Your task to perform on an android device: create a new album in the google photos Image 0: 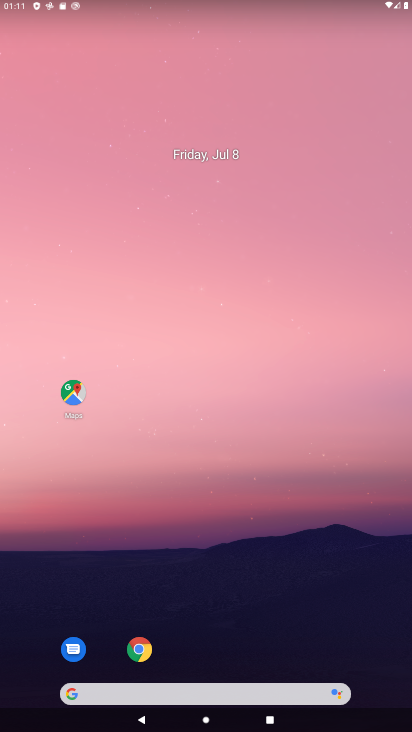
Step 0: drag from (357, 578) to (233, 229)
Your task to perform on an android device: create a new album in the google photos Image 1: 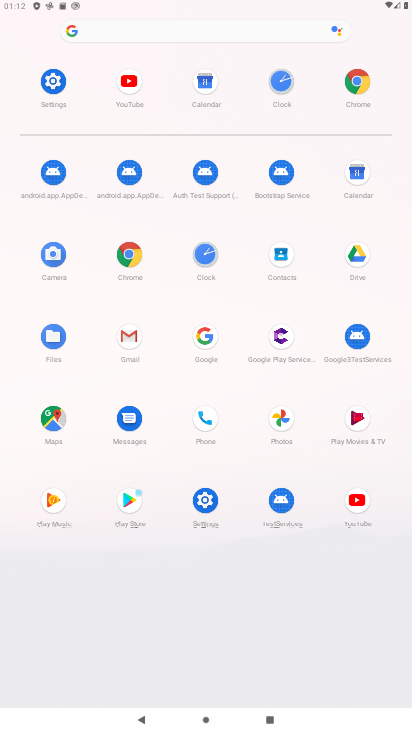
Step 1: click (280, 413)
Your task to perform on an android device: create a new album in the google photos Image 2: 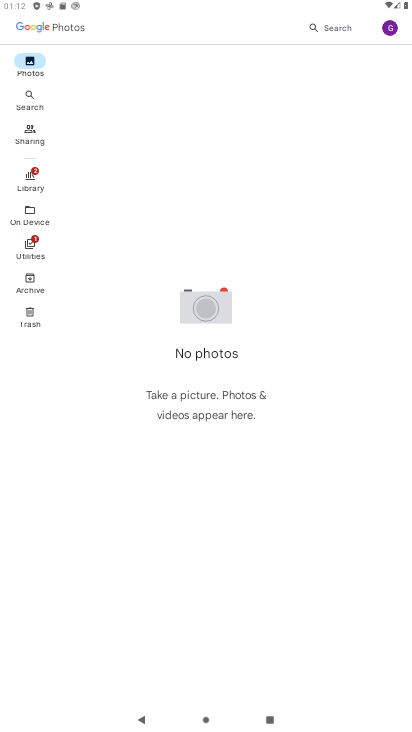
Step 2: click (33, 183)
Your task to perform on an android device: create a new album in the google photos Image 3: 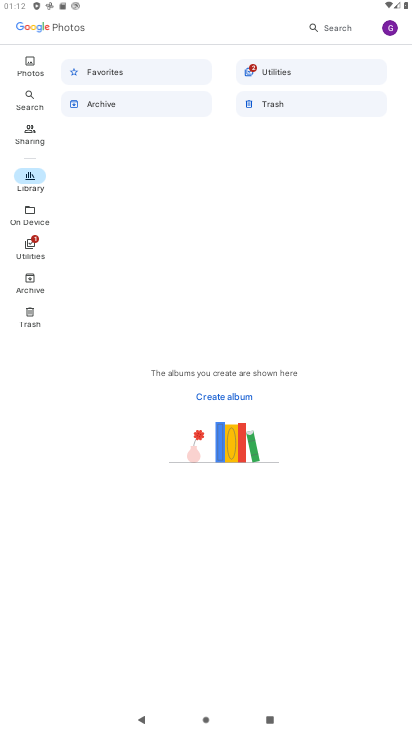
Step 3: click (246, 403)
Your task to perform on an android device: create a new album in the google photos Image 4: 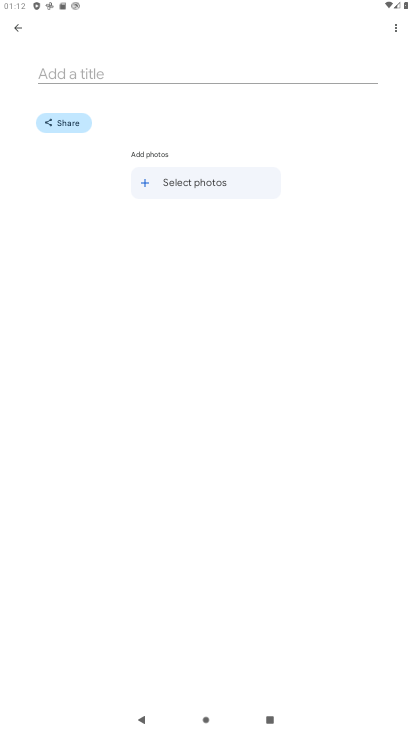
Step 4: click (200, 75)
Your task to perform on an android device: create a new album in the google photos Image 5: 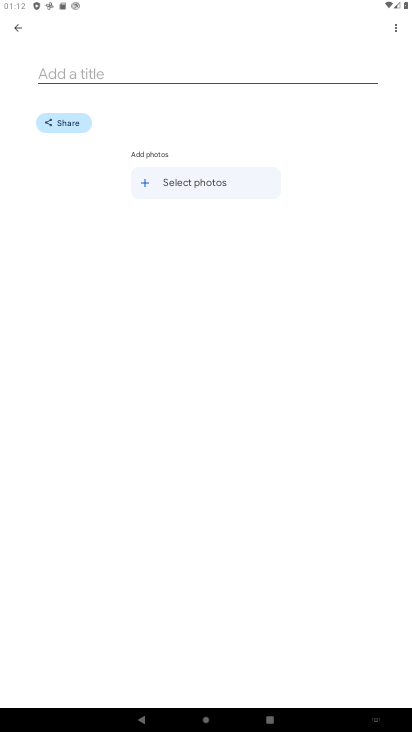
Step 5: type "jou"
Your task to perform on an android device: create a new album in the google photos Image 6: 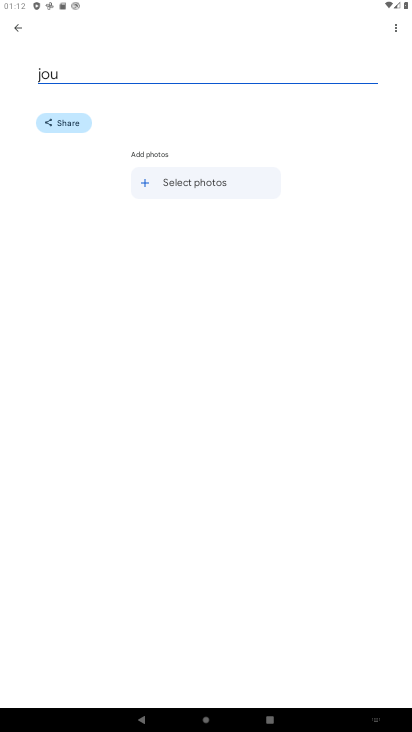
Step 6: click (205, 184)
Your task to perform on an android device: create a new album in the google photos Image 7: 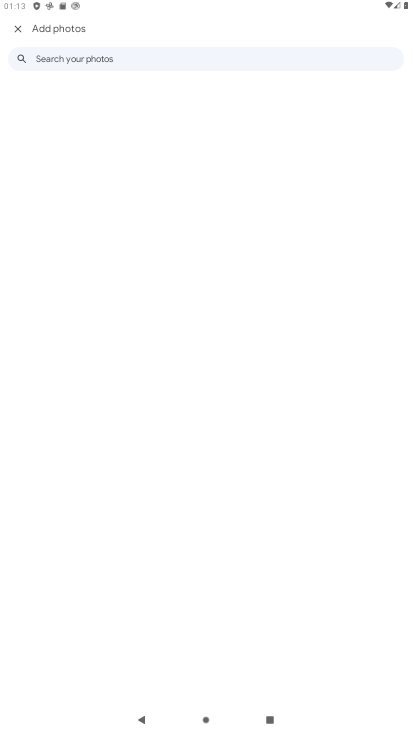
Step 7: press enter
Your task to perform on an android device: create a new album in the google photos Image 8: 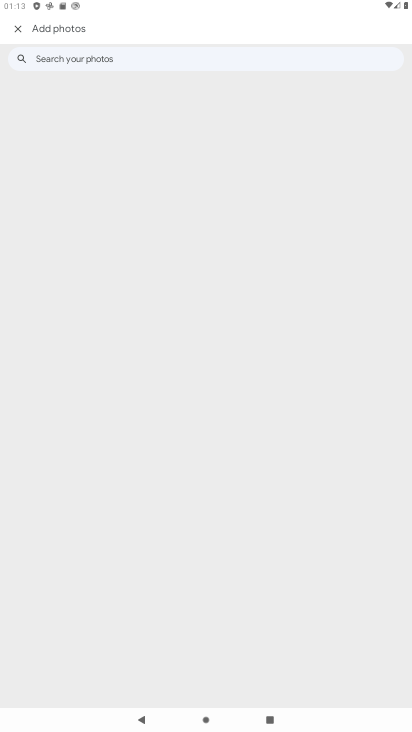
Step 8: click (21, 31)
Your task to perform on an android device: create a new album in the google photos Image 9: 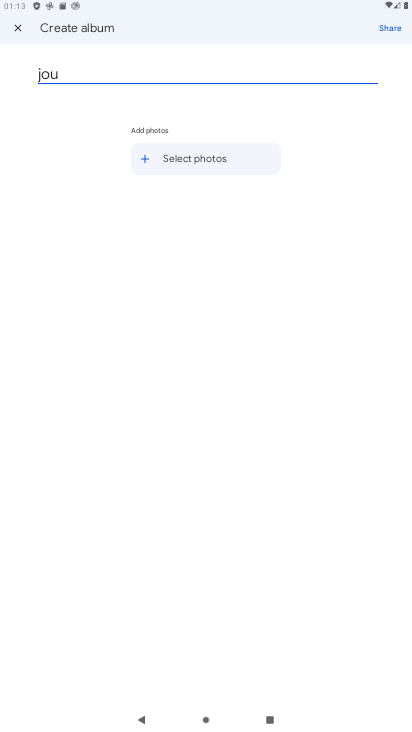
Step 9: press enter
Your task to perform on an android device: create a new album in the google photos Image 10: 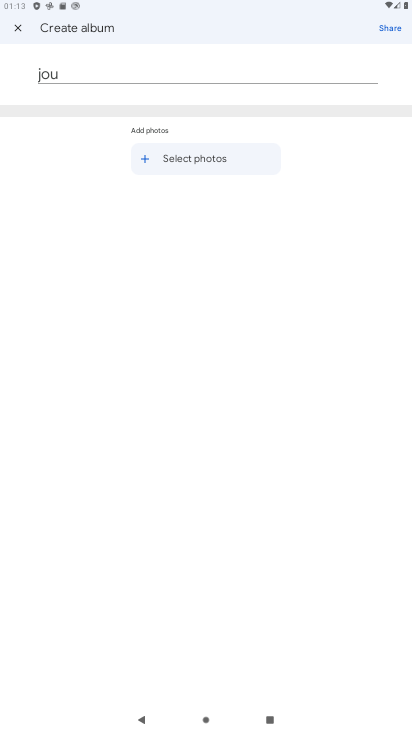
Step 10: press enter
Your task to perform on an android device: create a new album in the google photos Image 11: 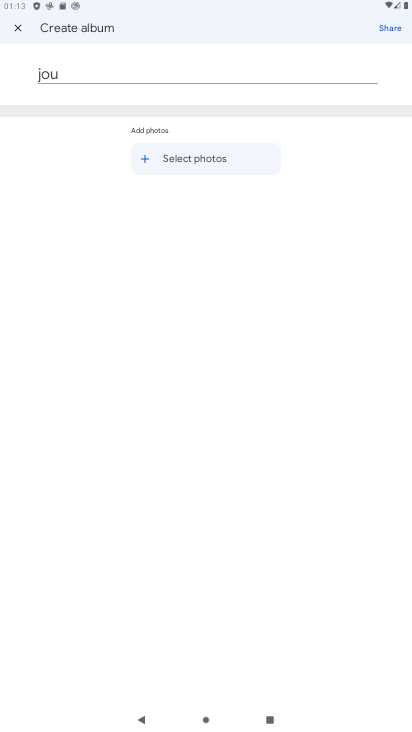
Step 11: task complete